Your task to perform on an android device: Open the calendar and show me this week's events? Image 0: 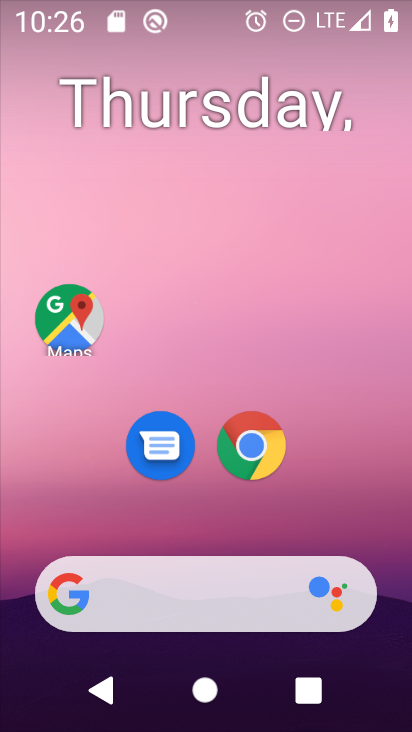
Step 0: drag from (398, 629) to (278, 22)
Your task to perform on an android device: Open the calendar and show me this week's events? Image 1: 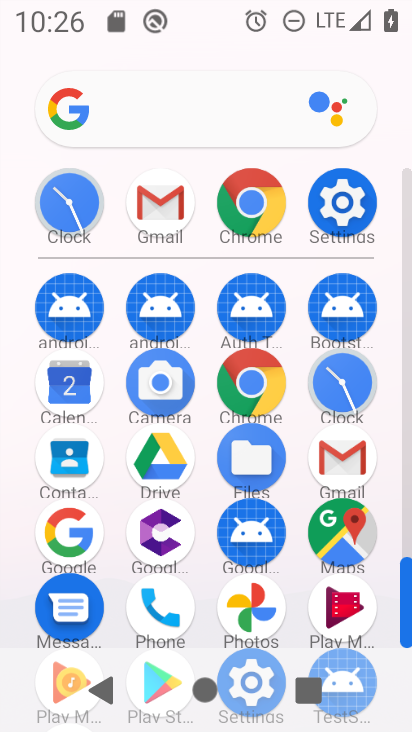
Step 1: click (70, 377)
Your task to perform on an android device: Open the calendar and show me this week's events? Image 2: 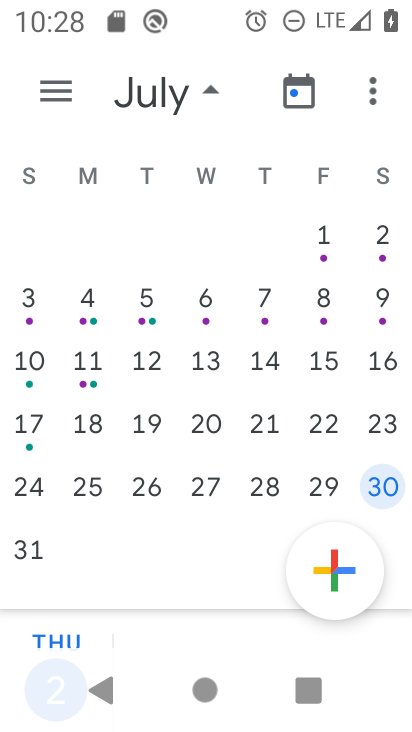
Step 2: task complete